Your task to perform on an android device: Open calendar and show me the third week of next month Image 0: 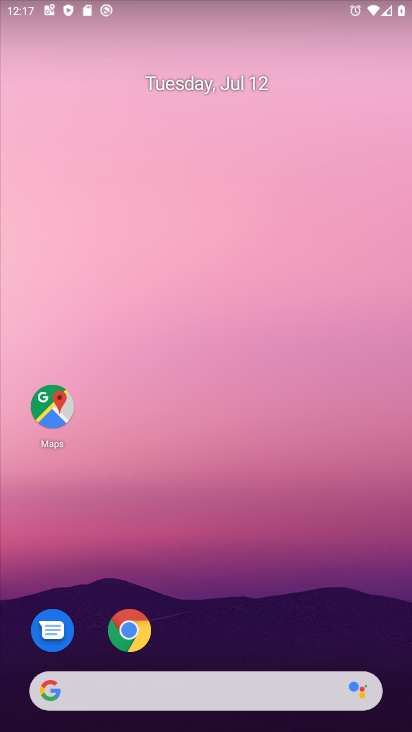
Step 0: drag from (244, 687) to (365, 190)
Your task to perform on an android device: Open calendar and show me the third week of next month Image 1: 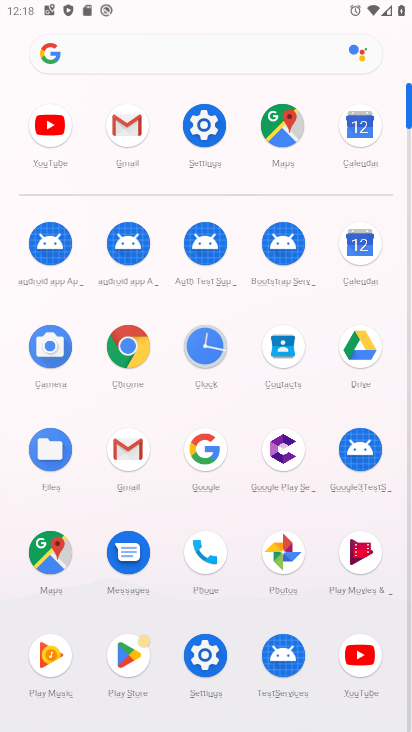
Step 1: click (358, 126)
Your task to perform on an android device: Open calendar and show me the third week of next month Image 2: 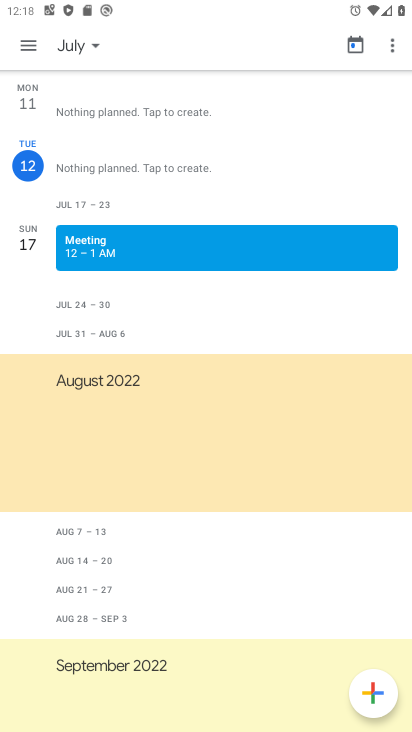
Step 2: click (355, 47)
Your task to perform on an android device: Open calendar and show me the third week of next month Image 3: 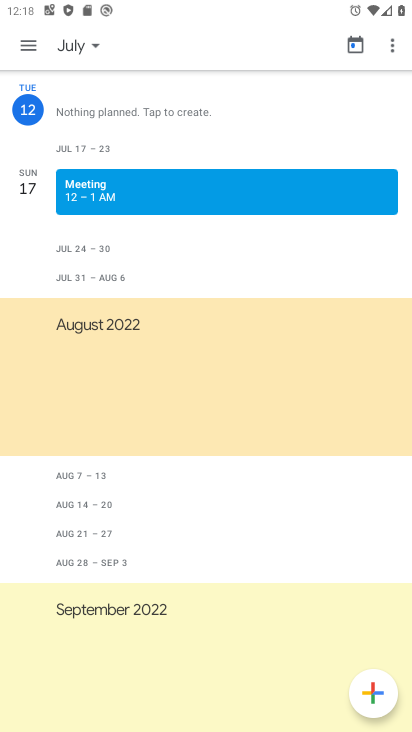
Step 3: click (97, 47)
Your task to perform on an android device: Open calendar and show me the third week of next month Image 4: 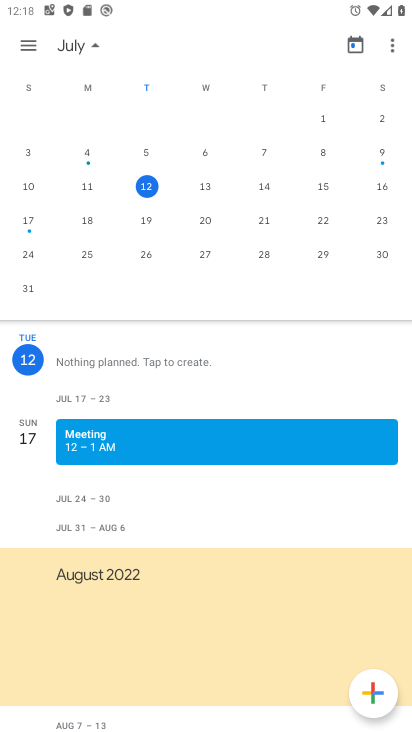
Step 4: drag from (399, 196) to (24, 174)
Your task to perform on an android device: Open calendar and show me the third week of next month Image 5: 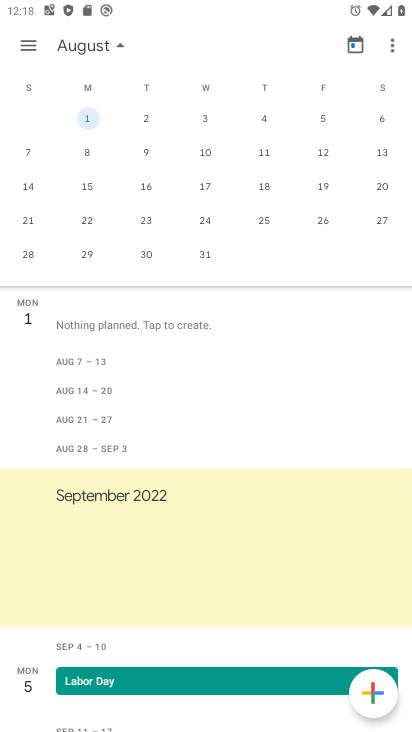
Step 5: click (85, 188)
Your task to perform on an android device: Open calendar and show me the third week of next month Image 6: 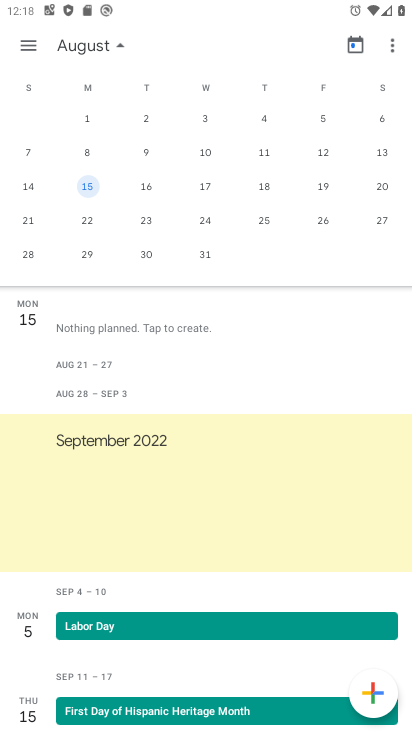
Step 6: click (27, 45)
Your task to perform on an android device: Open calendar and show me the third week of next month Image 7: 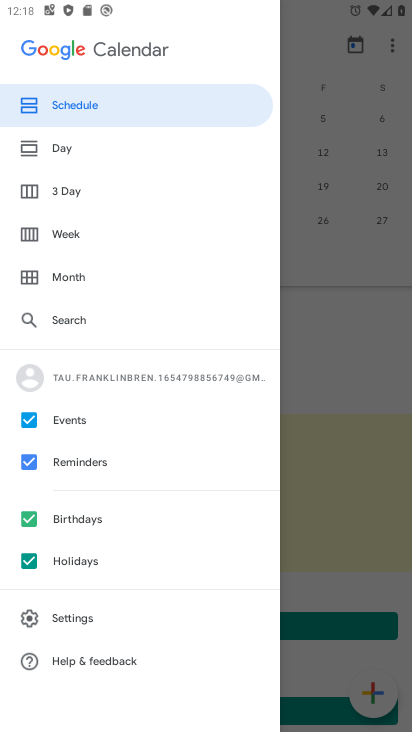
Step 7: click (60, 229)
Your task to perform on an android device: Open calendar and show me the third week of next month Image 8: 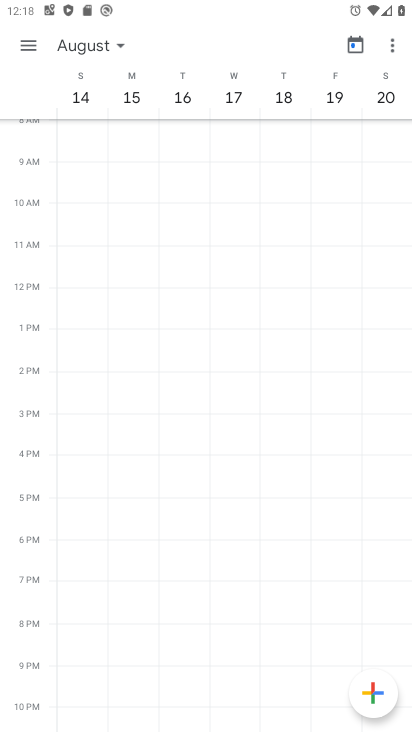
Step 8: task complete